Your task to perform on an android device: Show me recent news Image 0: 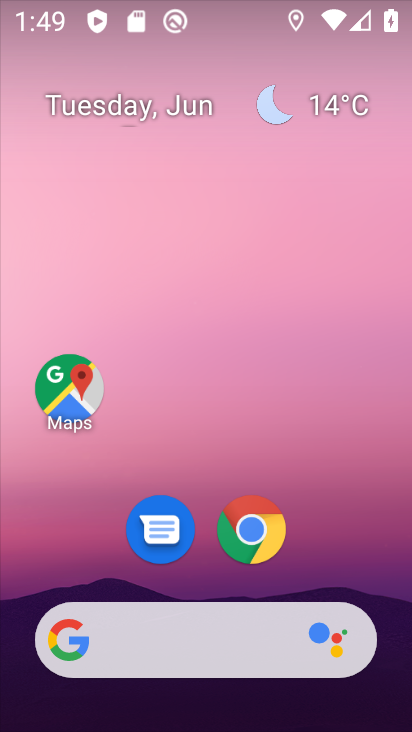
Step 0: drag from (138, 271) to (398, 332)
Your task to perform on an android device: Show me recent news Image 1: 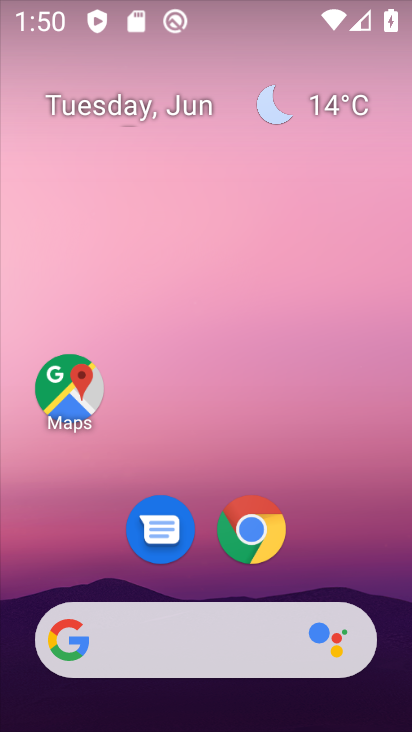
Step 1: task complete